Your task to perform on an android device: Open calendar and show me the second week of next month Image 0: 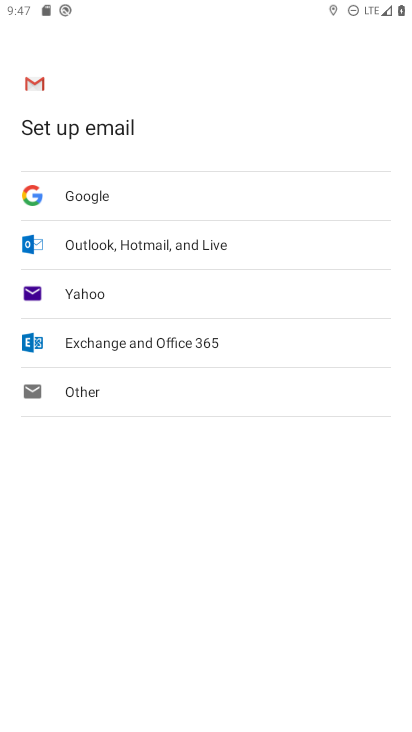
Step 0: press home button
Your task to perform on an android device: Open calendar and show me the second week of next month Image 1: 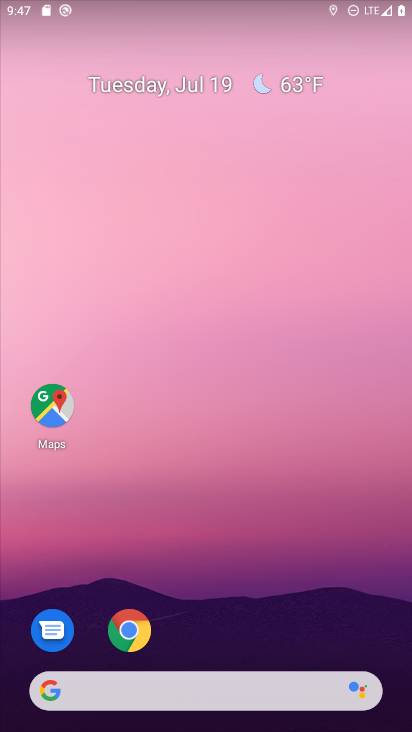
Step 1: drag from (228, 698) to (151, 154)
Your task to perform on an android device: Open calendar and show me the second week of next month Image 2: 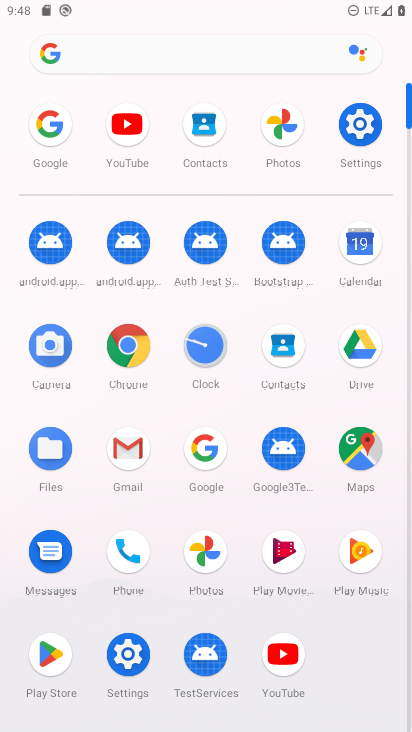
Step 2: click (358, 245)
Your task to perform on an android device: Open calendar and show me the second week of next month Image 3: 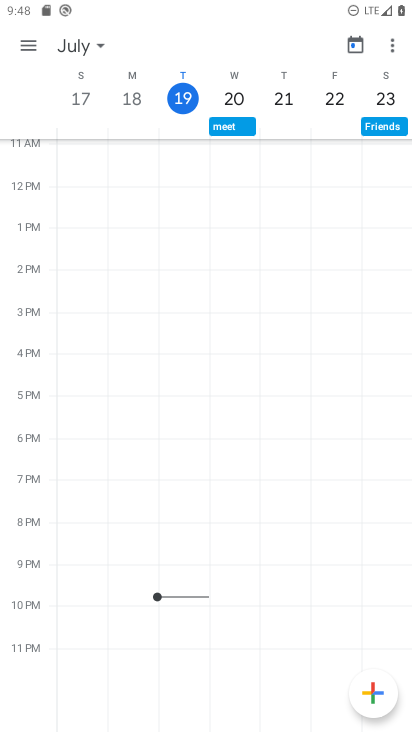
Step 3: click (355, 46)
Your task to perform on an android device: Open calendar and show me the second week of next month Image 4: 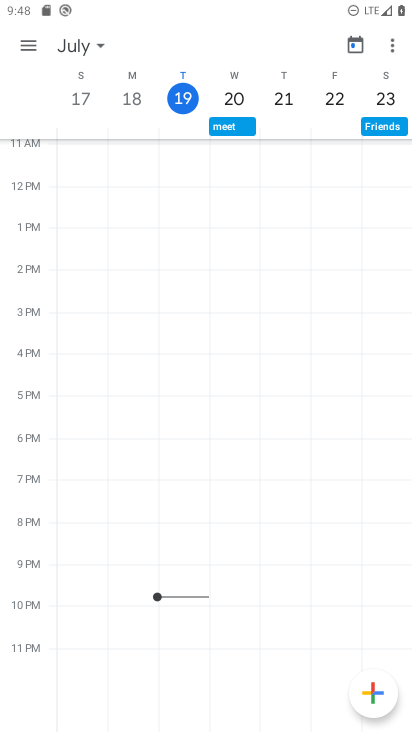
Step 4: click (99, 42)
Your task to perform on an android device: Open calendar and show me the second week of next month Image 5: 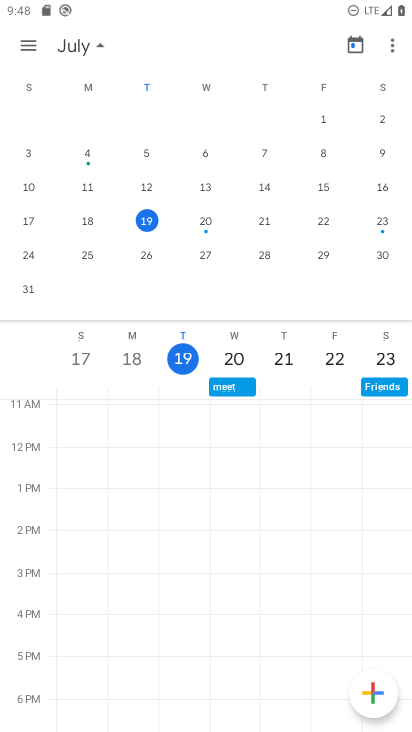
Step 5: drag from (353, 228) to (12, 196)
Your task to perform on an android device: Open calendar and show me the second week of next month Image 6: 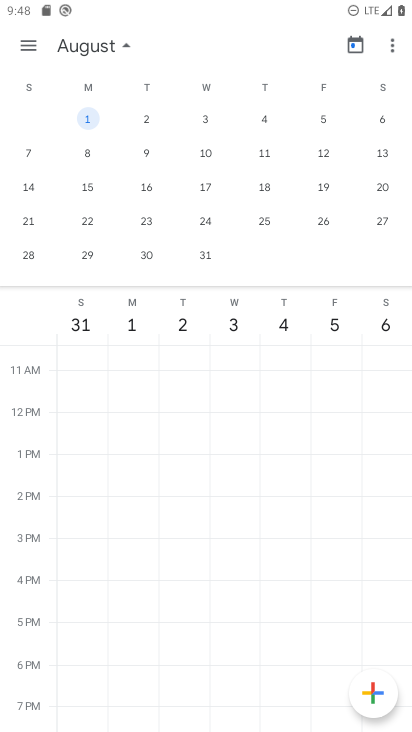
Step 6: click (91, 154)
Your task to perform on an android device: Open calendar and show me the second week of next month Image 7: 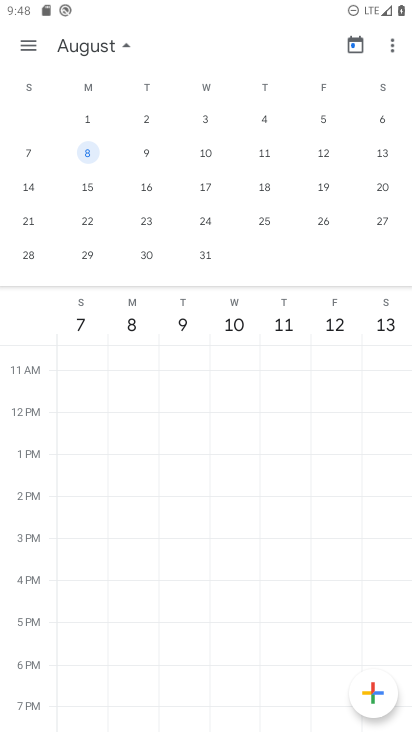
Step 7: click (33, 38)
Your task to perform on an android device: Open calendar and show me the second week of next month Image 8: 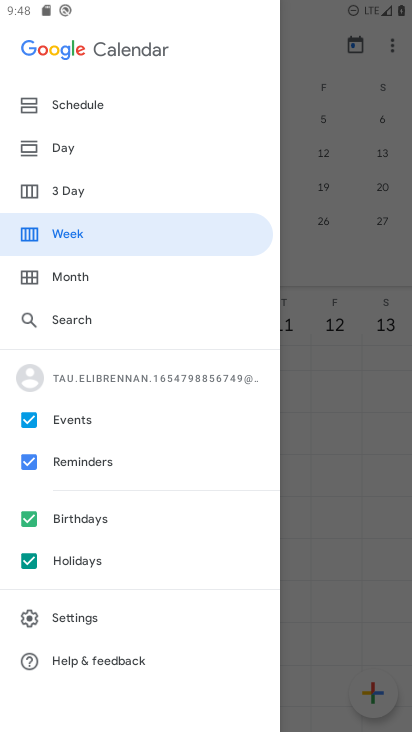
Step 8: click (73, 226)
Your task to perform on an android device: Open calendar and show me the second week of next month Image 9: 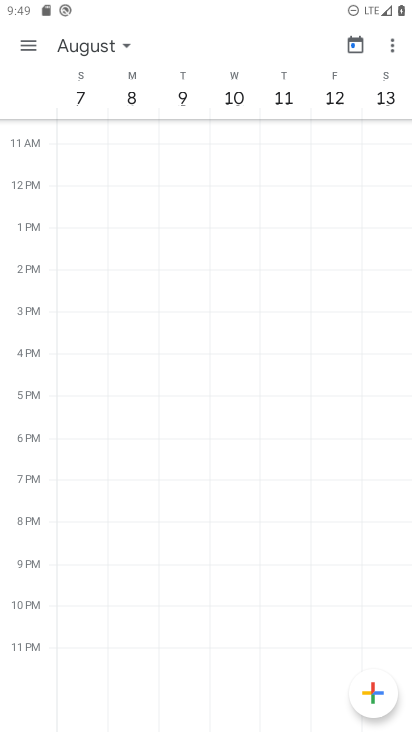
Step 9: task complete